Your task to perform on an android device: Search for vegetarian restaurants on Maps Image 0: 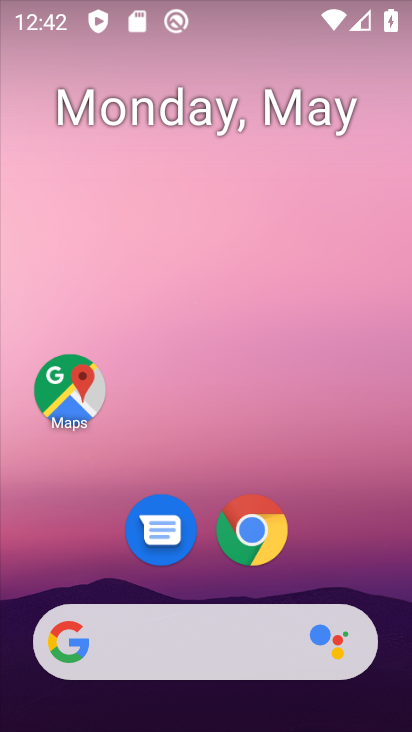
Step 0: click (63, 383)
Your task to perform on an android device: Search for vegetarian restaurants on Maps Image 1: 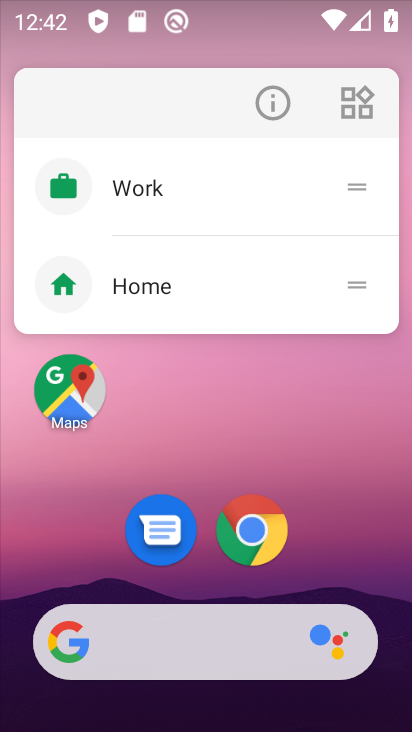
Step 1: click (70, 412)
Your task to perform on an android device: Search for vegetarian restaurants on Maps Image 2: 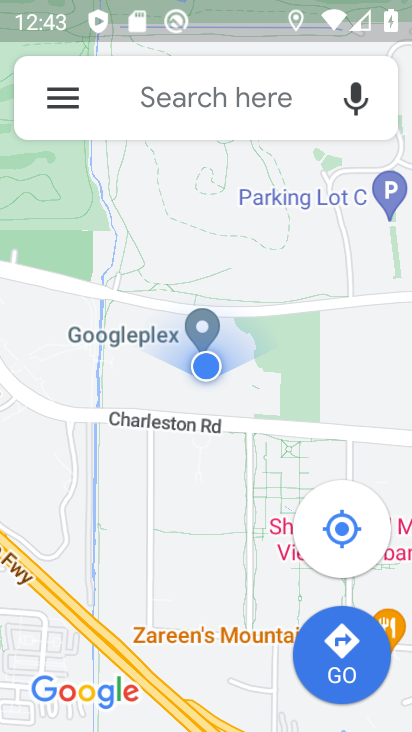
Step 2: click (191, 94)
Your task to perform on an android device: Search for vegetarian restaurants on Maps Image 3: 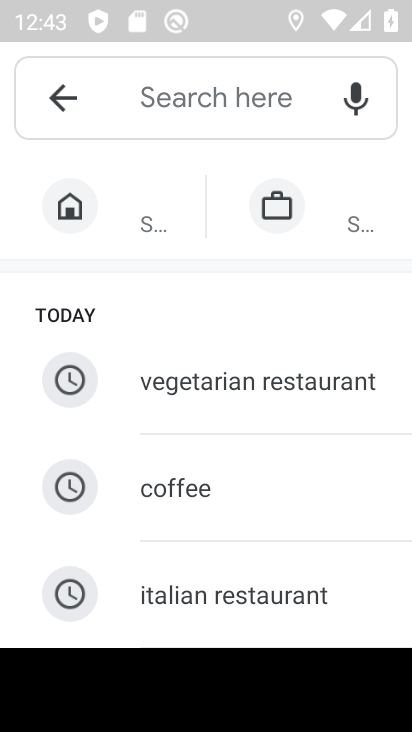
Step 3: click (244, 388)
Your task to perform on an android device: Search for vegetarian restaurants on Maps Image 4: 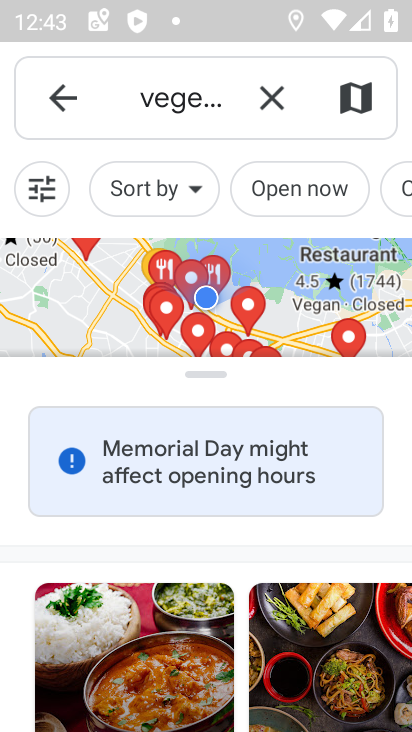
Step 4: task complete